Your task to perform on an android device: Open Chrome and go to settings Image 0: 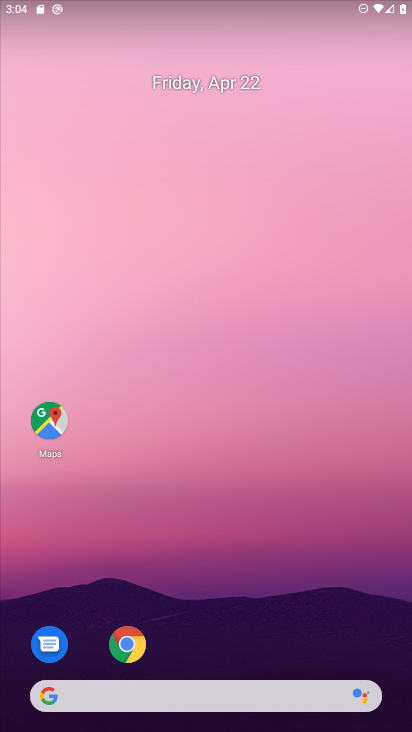
Step 0: drag from (290, 382) to (293, 136)
Your task to perform on an android device: Open Chrome and go to settings Image 1: 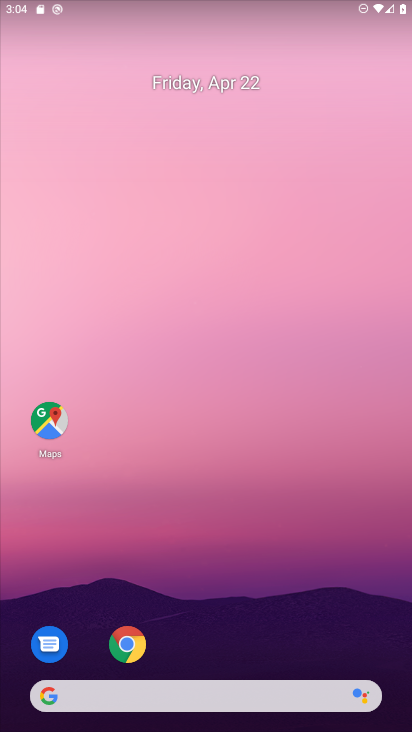
Step 1: click (128, 648)
Your task to perform on an android device: Open Chrome and go to settings Image 2: 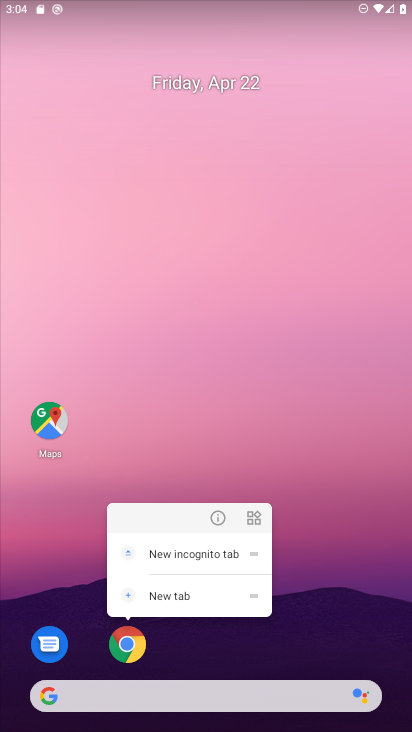
Step 2: click (128, 644)
Your task to perform on an android device: Open Chrome and go to settings Image 3: 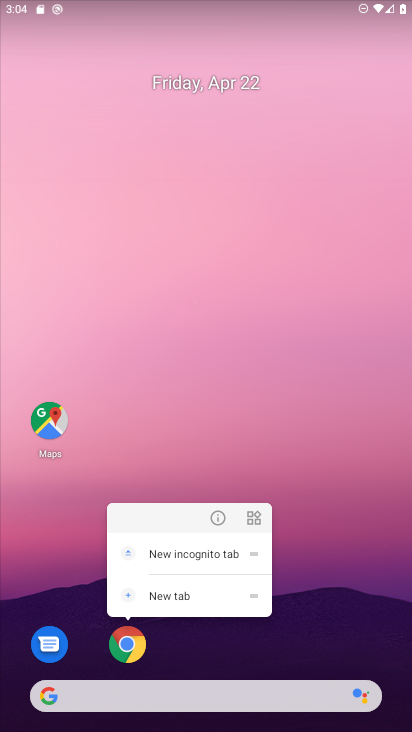
Step 3: click (340, 521)
Your task to perform on an android device: Open Chrome and go to settings Image 4: 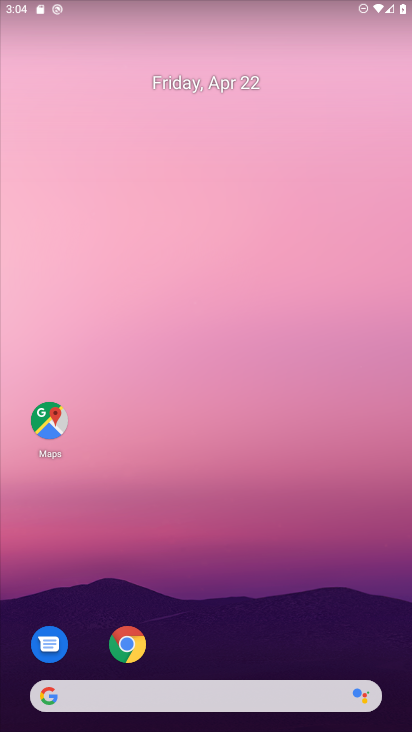
Step 4: click (125, 647)
Your task to perform on an android device: Open Chrome and go to settings Image 5: 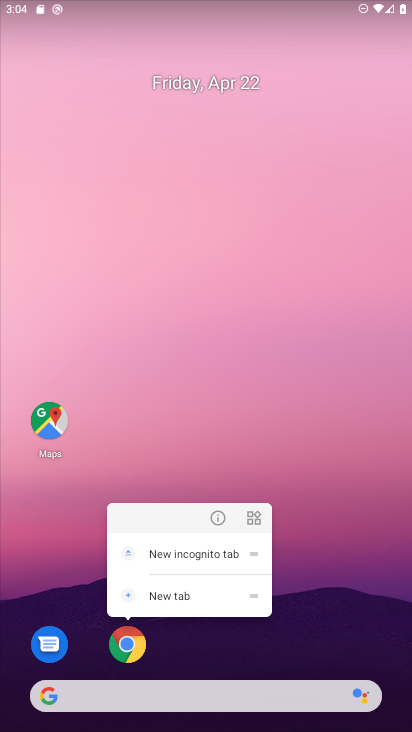
Step 5: click (127, 648)
Your task to perform on an android device: Open Chrome and go to settings Image 6: 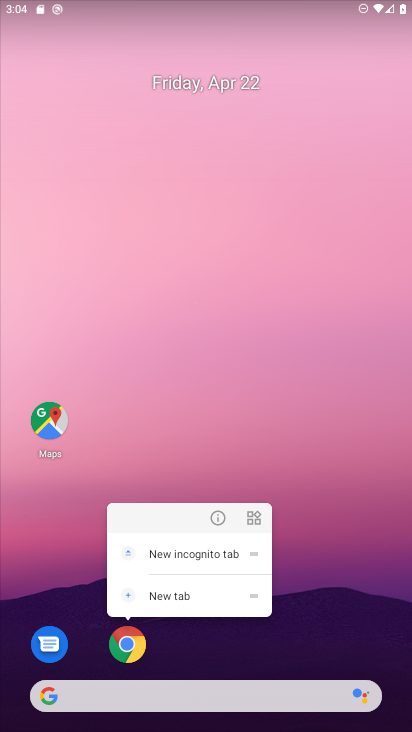
Step 6: drag from (296, 624) to (355, 99)
Your task to perform on an android device: Open Chrome and go to settings Image 7: 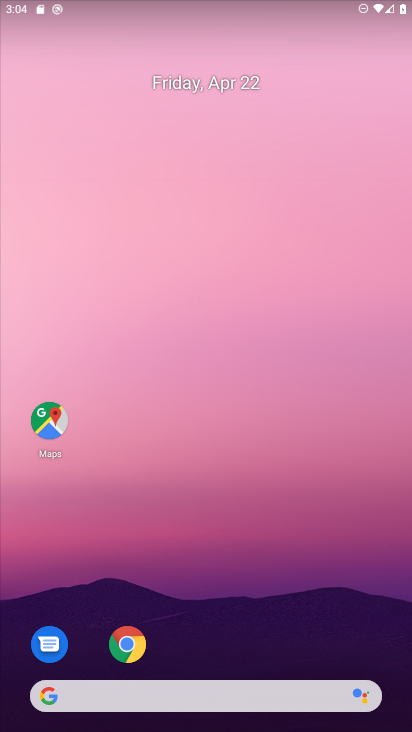
Step 7: drag from (327, 307) to (337, 116)
Your task to perform on an android device: Open Chrome and go to settings Image 8: 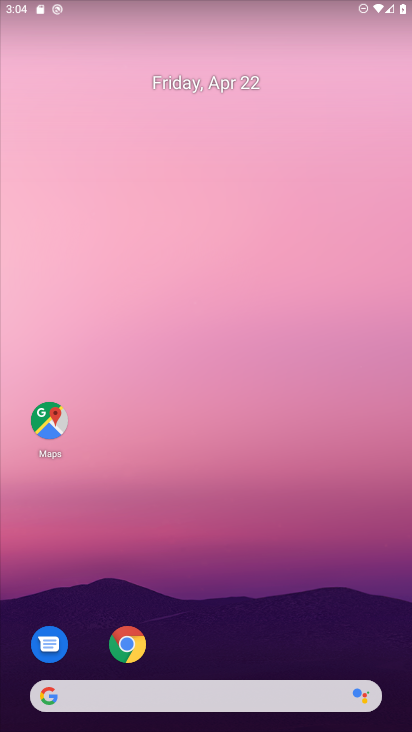
Step 8: drag from (263, 550) to (310, 178)
Your task to perform on an android device: Open Chrome and go to settings Image 9: 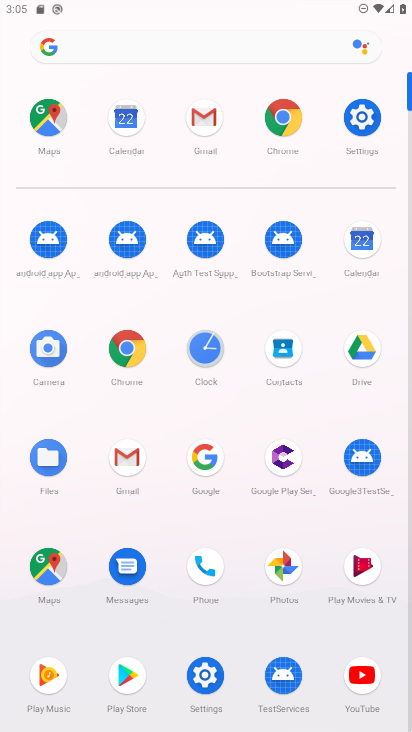
Step 9: click (133, 351)
Your task to perform on an android device: Open Chrome and go to settings Image 10: 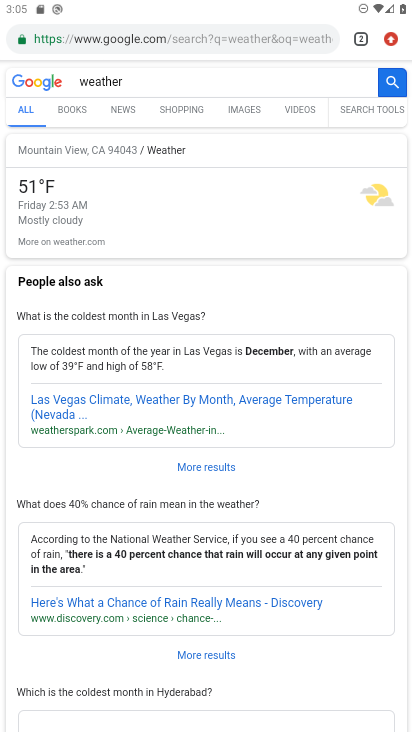
Step 10: task complete